Your task to perform on an android device: turn off data saver in the chrome app Image 0: 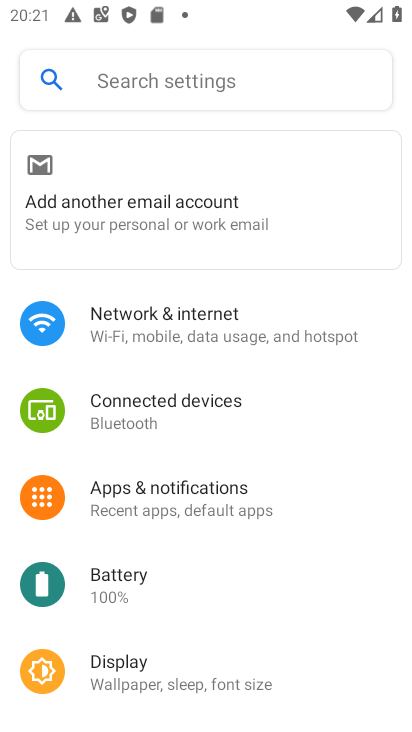
Step 0: press home button
Your task to perform on an android device: turn off data saver in the chrome app Image 1: 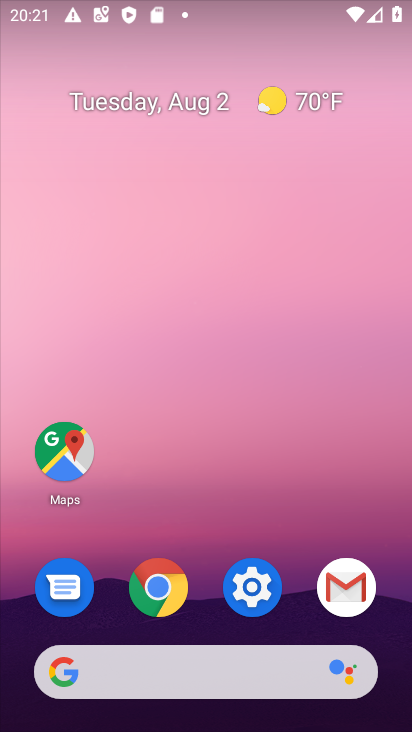
Step 1: click (248, 588)
Your task to perform on an android device: turn off data saver in the chrome app Image 2: 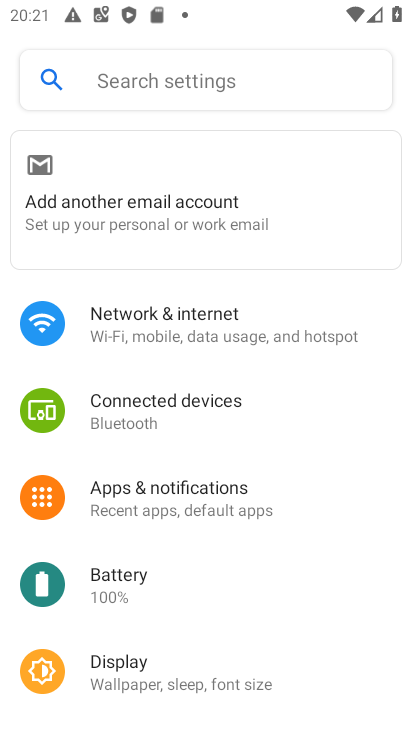
Step 2: click (134, 71)
Your task to perform on an android device: turn off data saver in the chrome app Image 3: 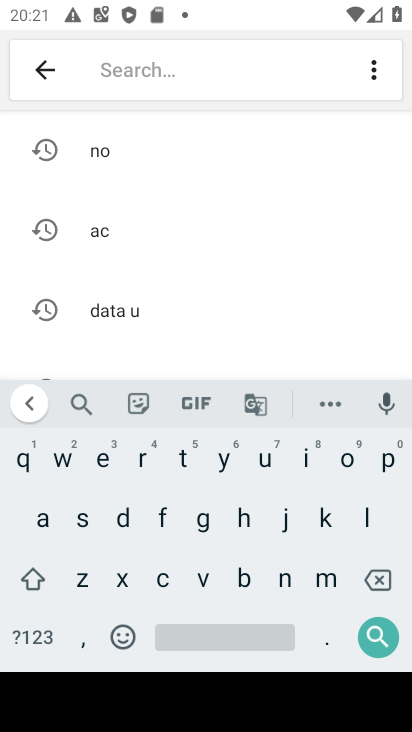
Step 3: press home button
Your task to perform on an android device: turn off data saver in the chrome app Image 4: 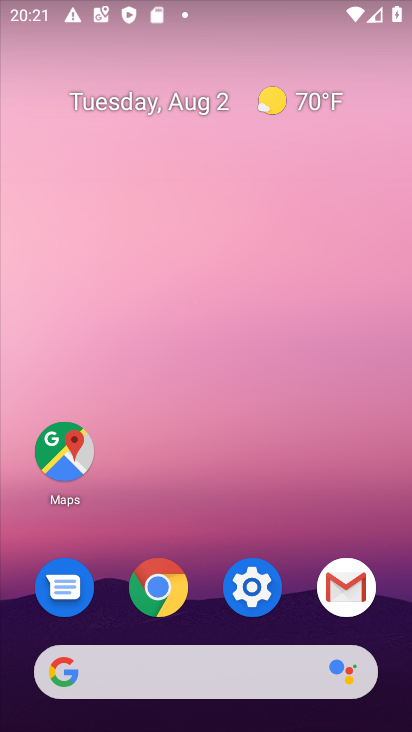
Step 4: click (173, 590)
Your task to perform on an android device: turn off data saver in the chrome app Image 5: 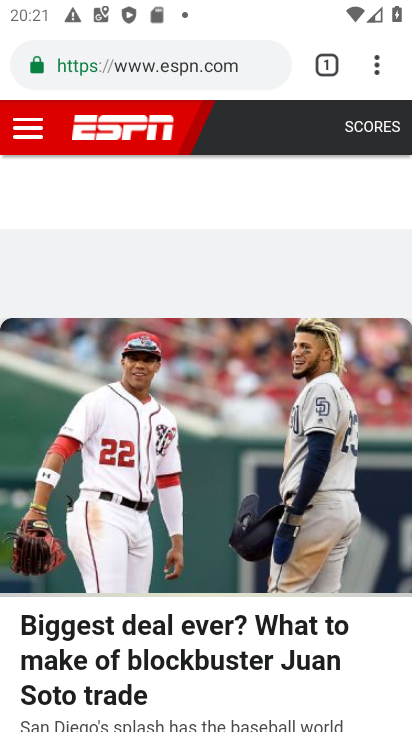
Step 5: click (370, 79)
Your task to perform on an android device: turn off data saver in the chrome app Image 6: 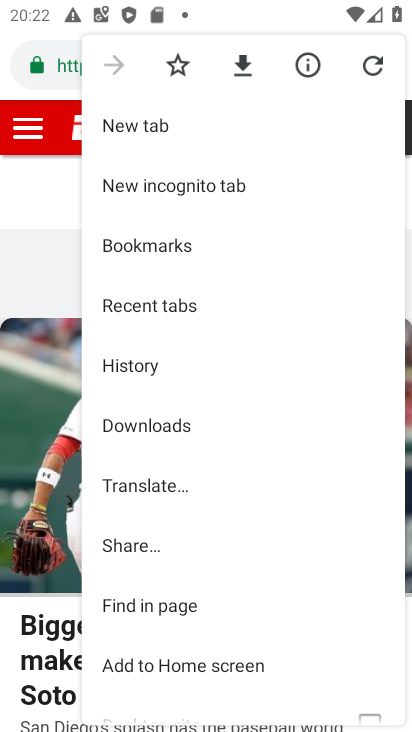
Step 6: click (173, 476)
Your task to perform on an android device: turn off data saver in the chrome app Image 7: 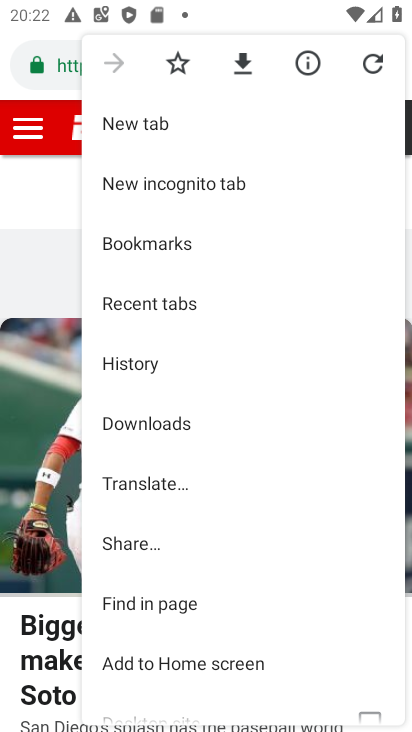
Step 7: drag from (167, 652) to (181, 309)
Your task to perform on an android device: turn off data saver in the chrome app Image 8: 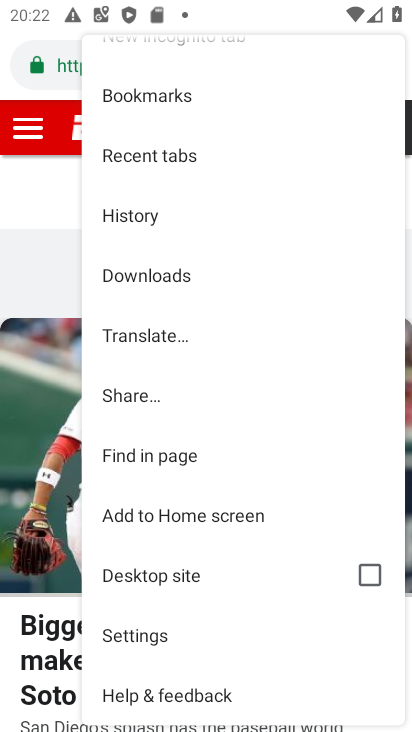
Step 8: click (149, 632)
Your task to perform on an android device: turn off data saver in the chrome app Image 9: 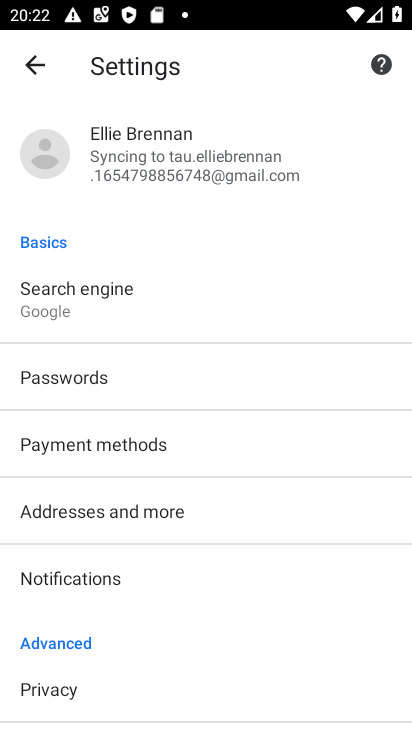
Step 9: drag from (157, 611) to (178, 407)
Your task to perform on an android device: turn off data saver in the chrome app Image 10: 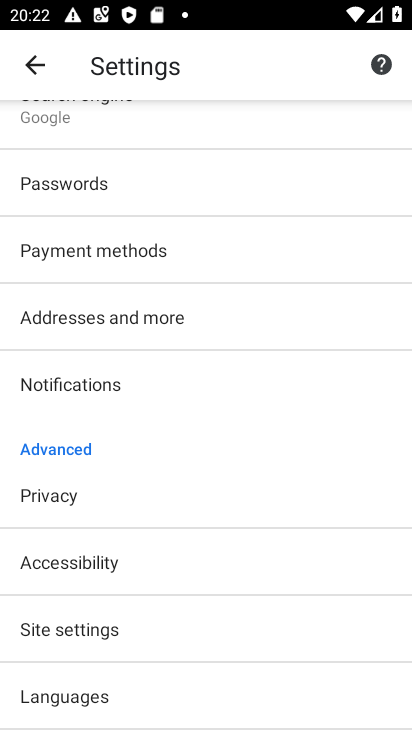
Step 10: click (77, 634)
Your task to perform on an android device: turn off data saver in the chrome app Image 11: 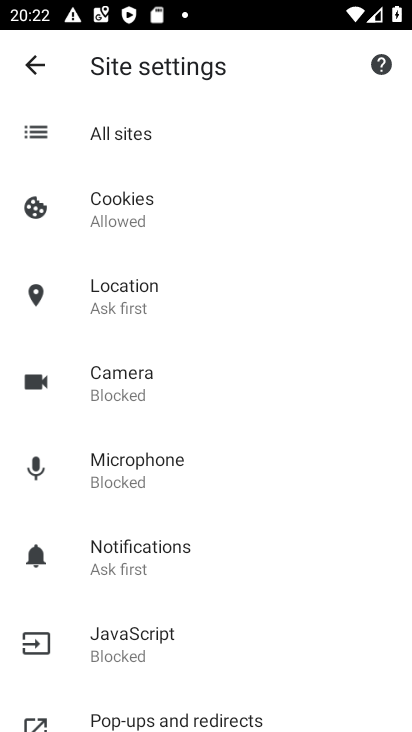
Step 11: click (38, 74)
Your task to perform on an android device: turn off data saver in the chrome app Image 12: 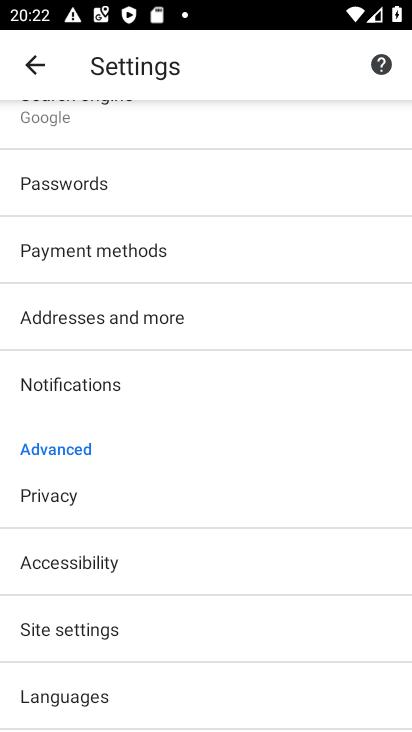
Step 12: drag from (135, 707) to (130, 513)
Your task to perform on an android device: turn off data saver in the chrome app Image 13: 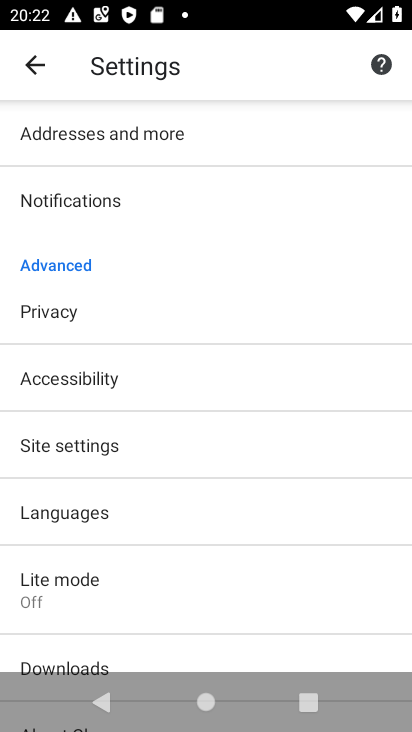
Step 13: click (105, 607)
Your task to perform on an android device: turn off data saver in the chrome app Image 14: 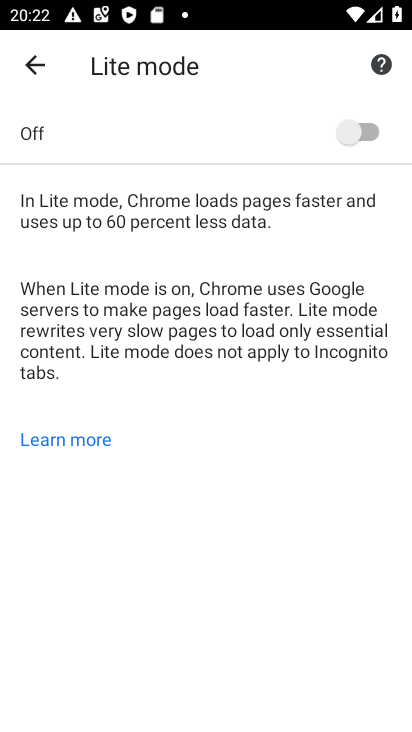
Step 14: click (351, 115)
Your task to perform on an android device: turn off data saver in the chrome app Image 15: 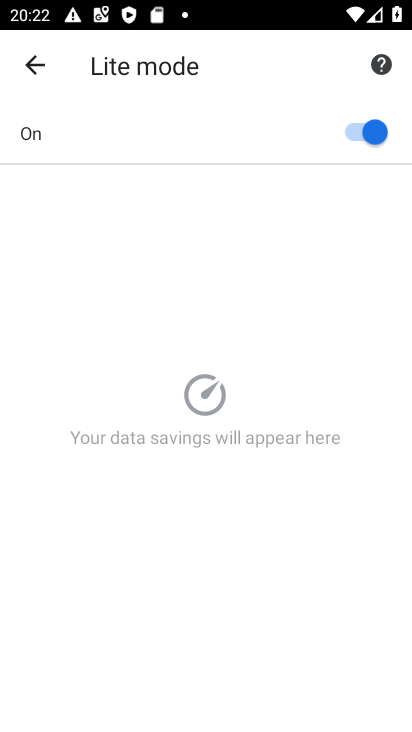
Step 15: click (346, 124)
Your task to perform on an android device: turn off data saver in the chrome app Image 16: 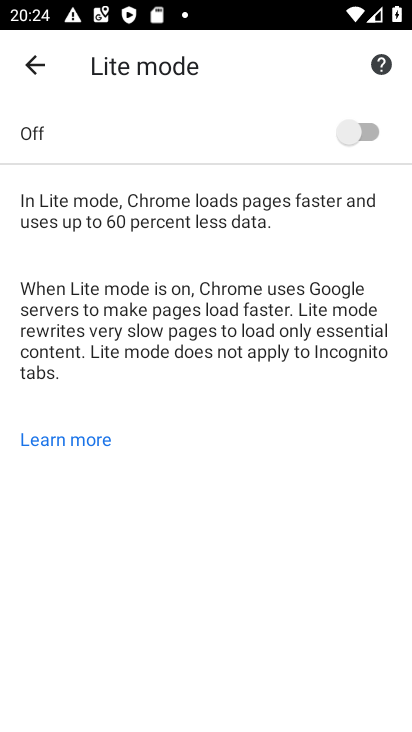
Step 16: task complete